Your task to perform on an android device: Search for Italian restaurants on Maps Image 0: 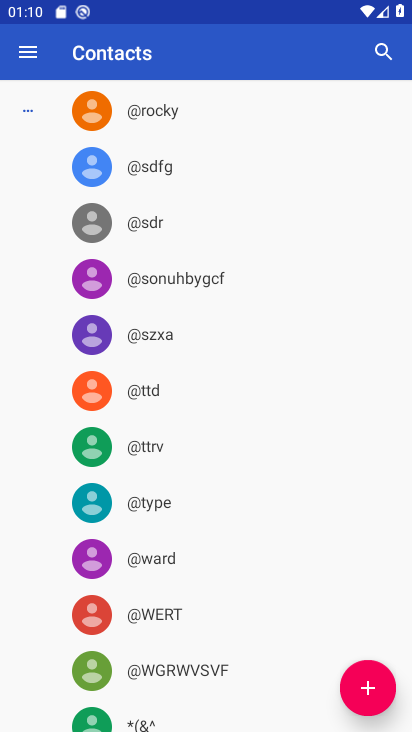
Step 0: press home button
Your task to perform on an android device: Search for Italian restaurants on Maps Image 1: 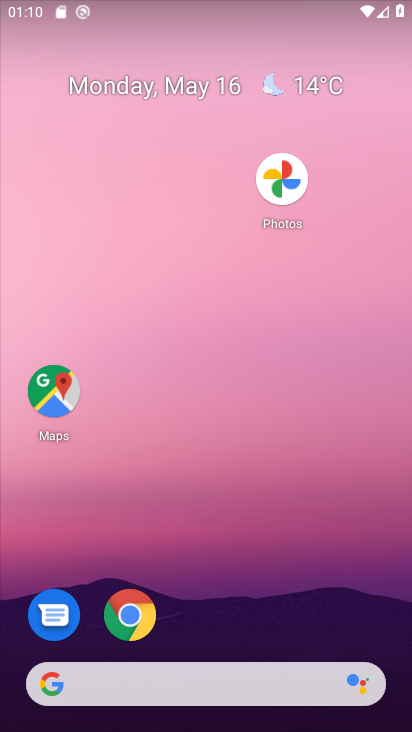
Step 1: drag from (345, 635) to (346, 215)
Your task to perform on an android device: Search for Italian restaurants on Maps Image 2: 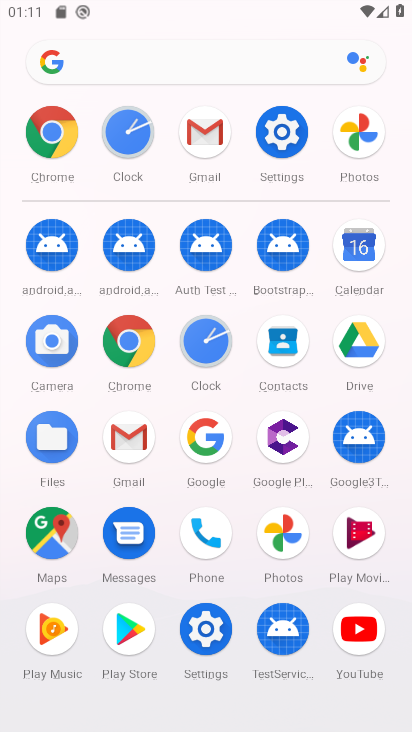
Step 2: click (43, 539)
Your task to perform on an android device: Search for Italian restaurants on Maps Image 3: 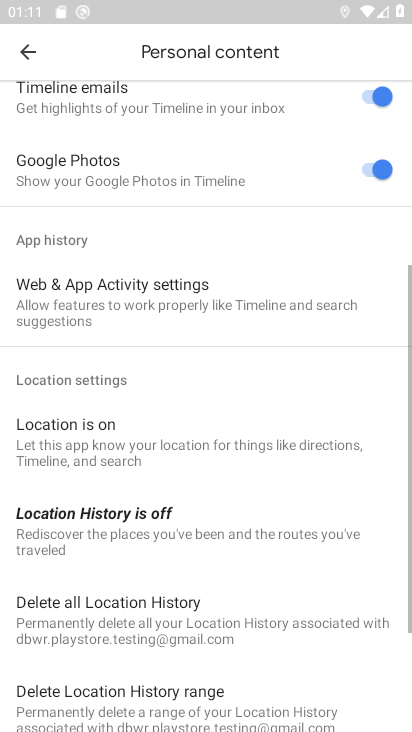
Step 3: click (36, 61)
Your task to perform on an android device: Search for Italian restaurants on Maps Image 4: 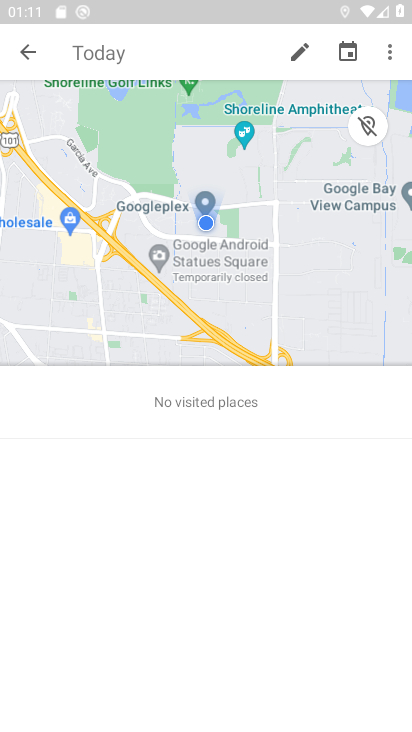
Step 4: click (89, 47)
Your task to perform on an android device: Search for Italian restaurants on Maps Image 5: 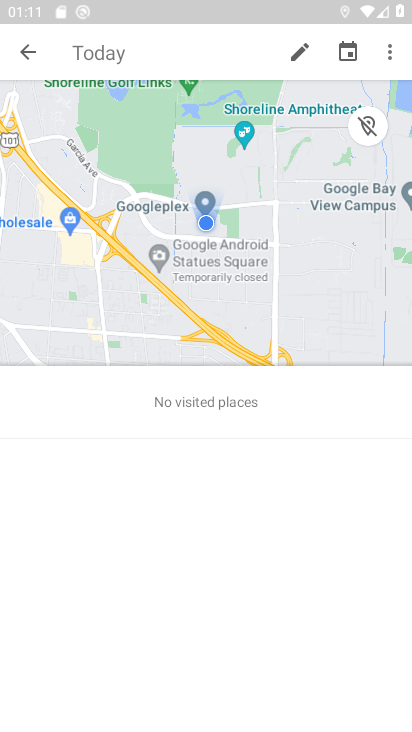
Step 5: click (35, 56)
Your task to perform on an android device: Search for Italian restaurants on Maps Image 6: 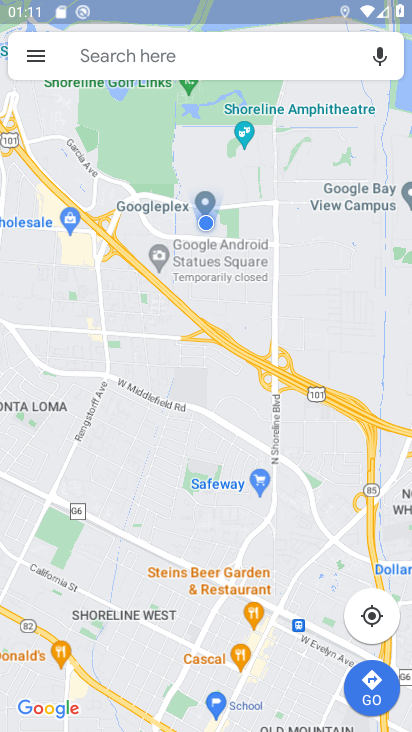
Step 6: click (190, 50)
Your task to perform on an android device: Search for Italian restaurants on Maps Image 7: 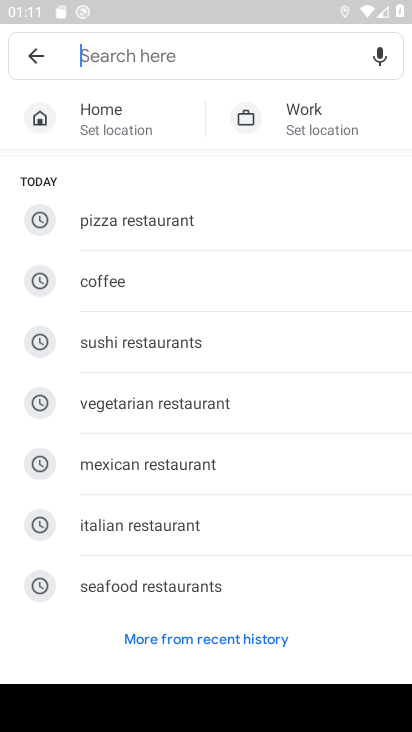
Step 7: click (187, 526)
Your task to perform on an android device: Search for Italian restaurants on Maps Image 8: 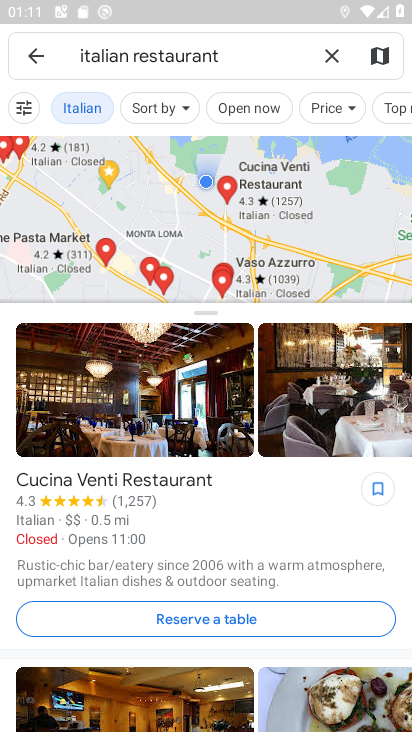
Step 8: task complete